Your task to perform on an android device: Is it going to rain tomorrow? Image 0: 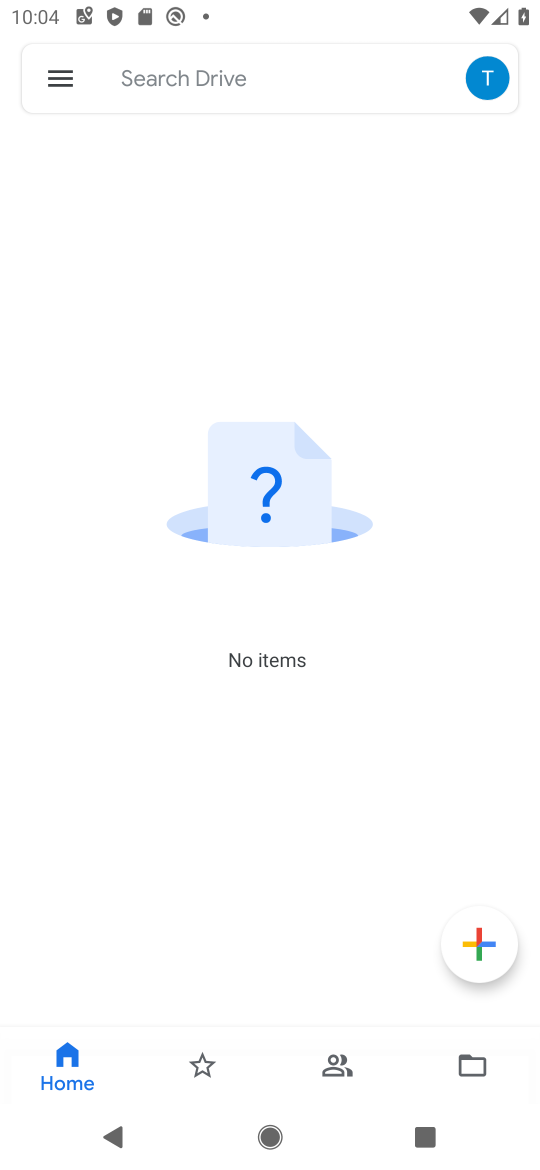
Step 0: drag from (94, 1056) to (6, 1166)
Your task to perform on an android device: Is it going to rain tomorrow? Image 1: 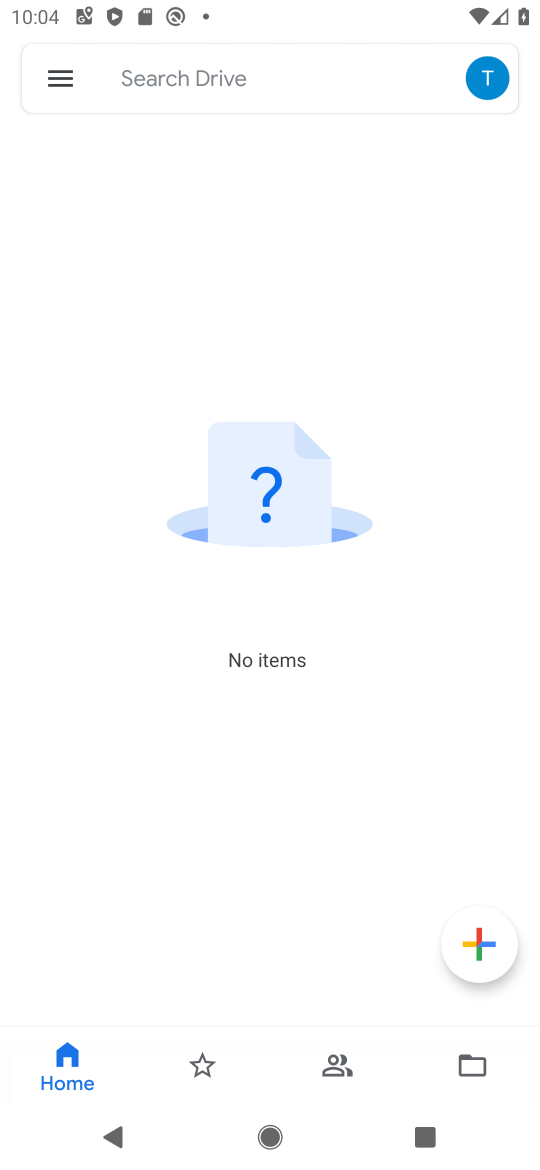
Step 1: click (217, 1158)
Your task to perform on an android device: Is it going to rain tomorrow? Image 2: 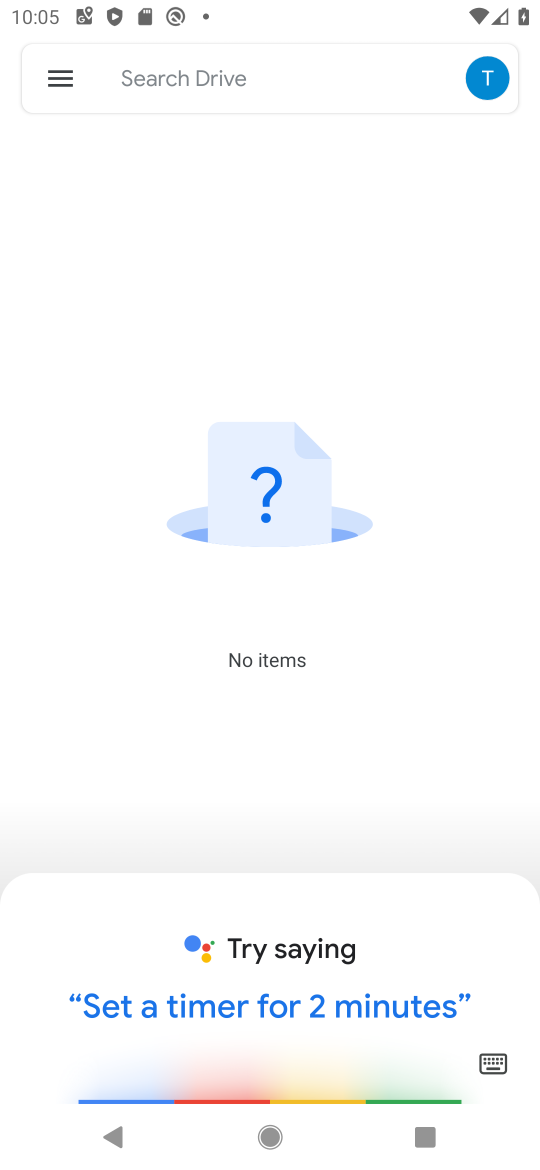
Step 2: press home button
Your task to perform on an android device: Is it going to rain tomorrow? Image 3: 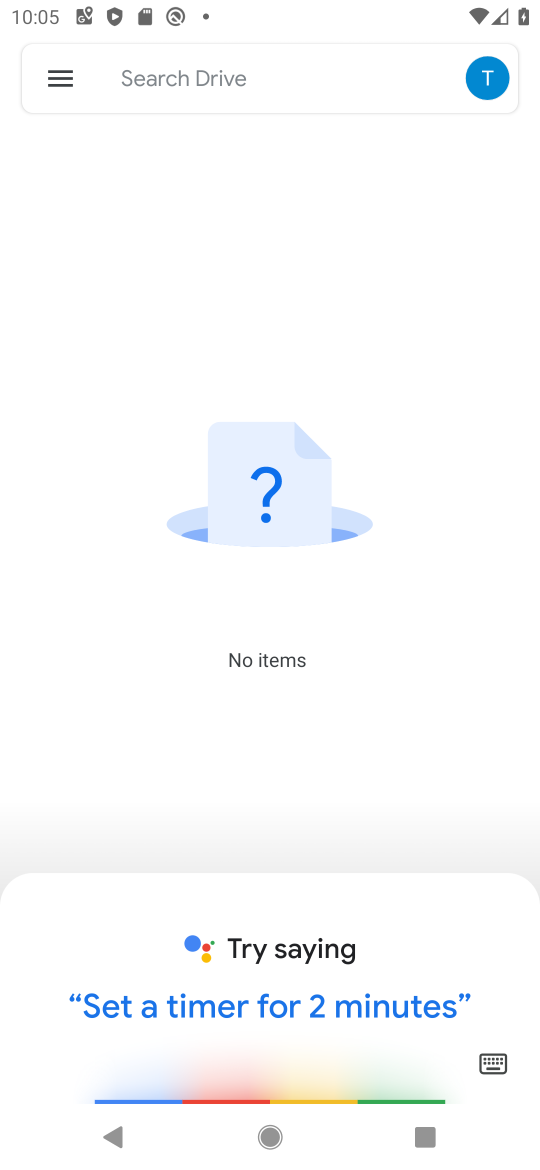
Step 3: click (228, 91)
Your task to perform on an android device: Is it going to rain tomorrow? Image 4: 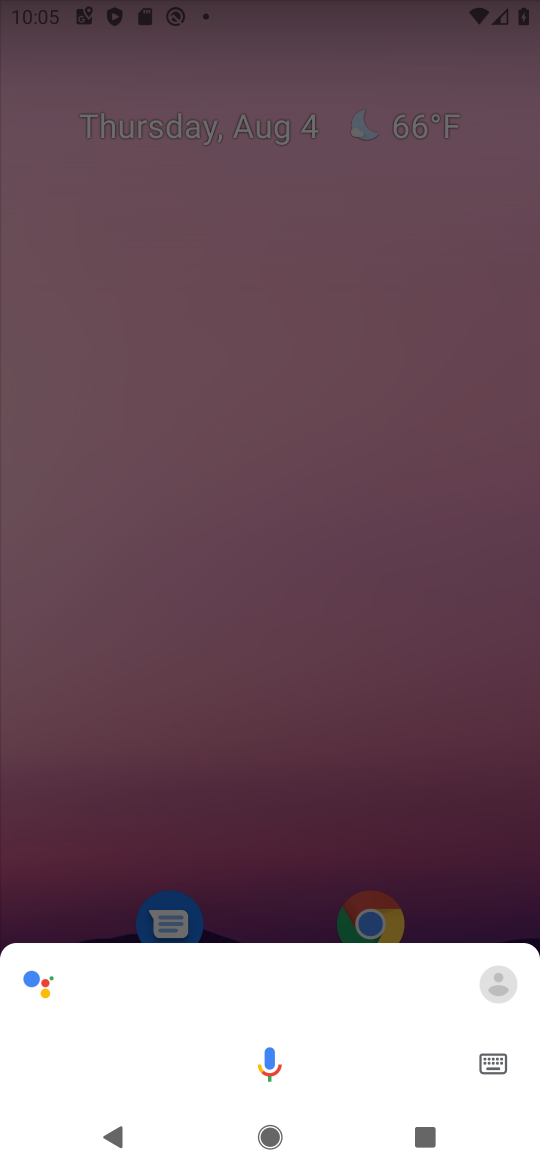
Step 4: click (188, 1055)
Your task to perform on an android device: Is it going to rain tomorrow? Image 5: 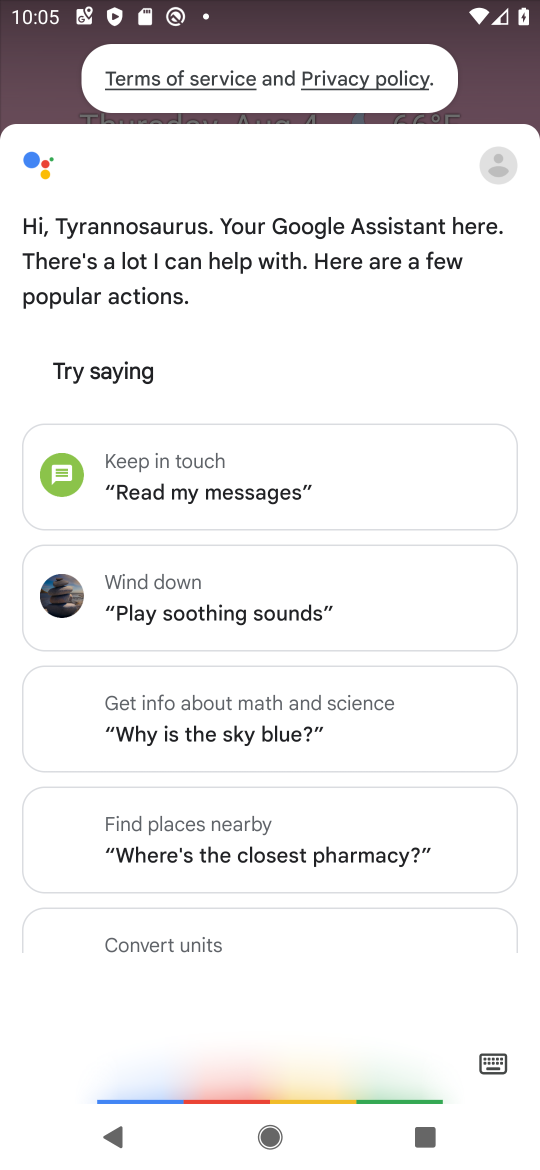
Step 5: press enter
Your task to perform on an android device: Is it going to rain tomorrow? Image 6: 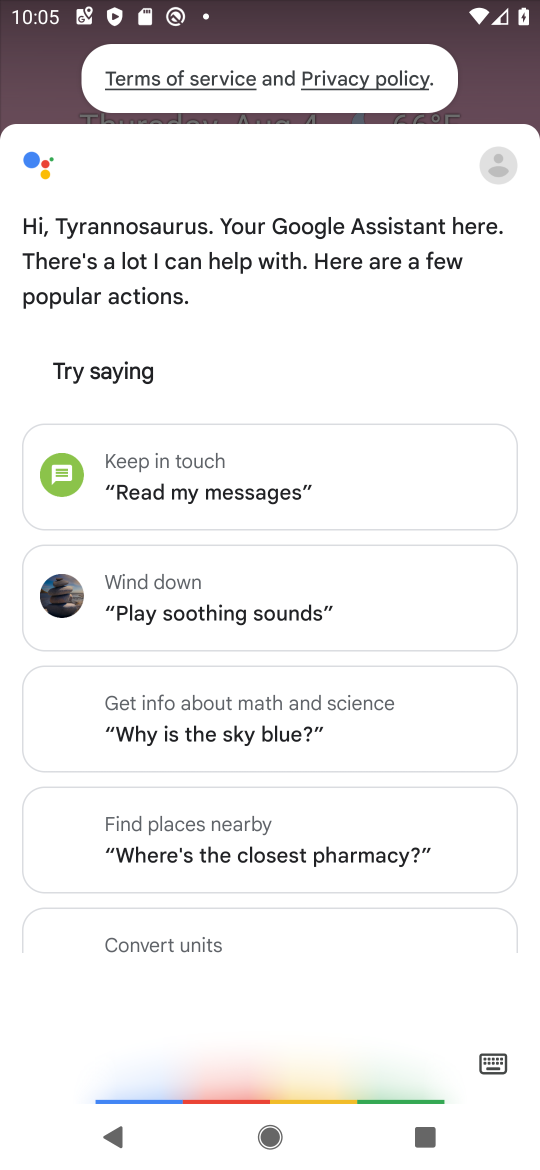
Step 6: type " Is it going to rain tomorrow?"
Your task to perform on an android device: Is it going to rain tomorrow? Image 7: 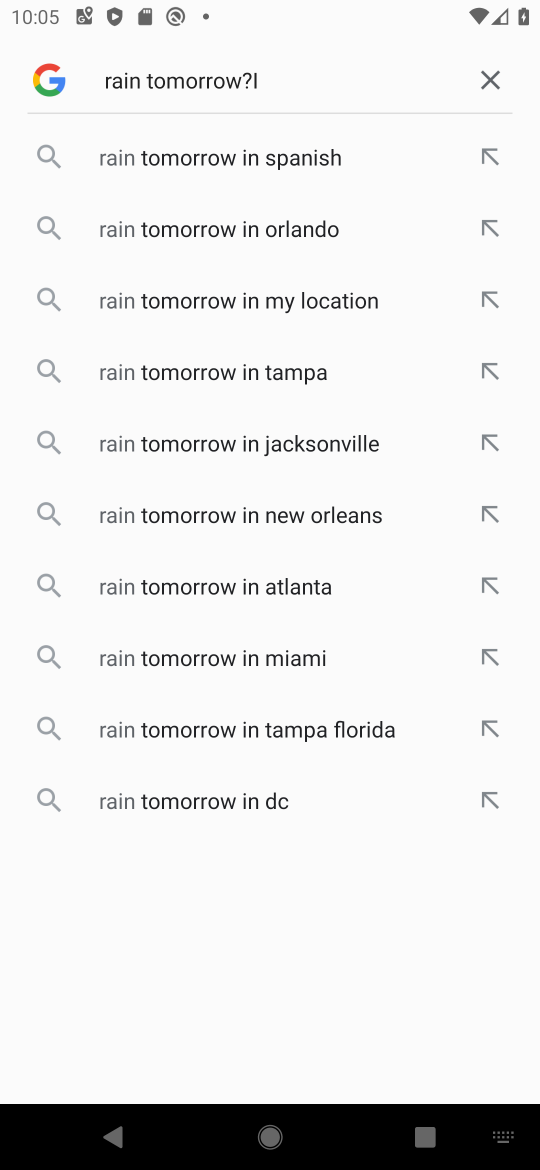
Step 7: click (111, 1144)
Your task to perform on an android device: Is it going to rain tomorrow? Image 8: 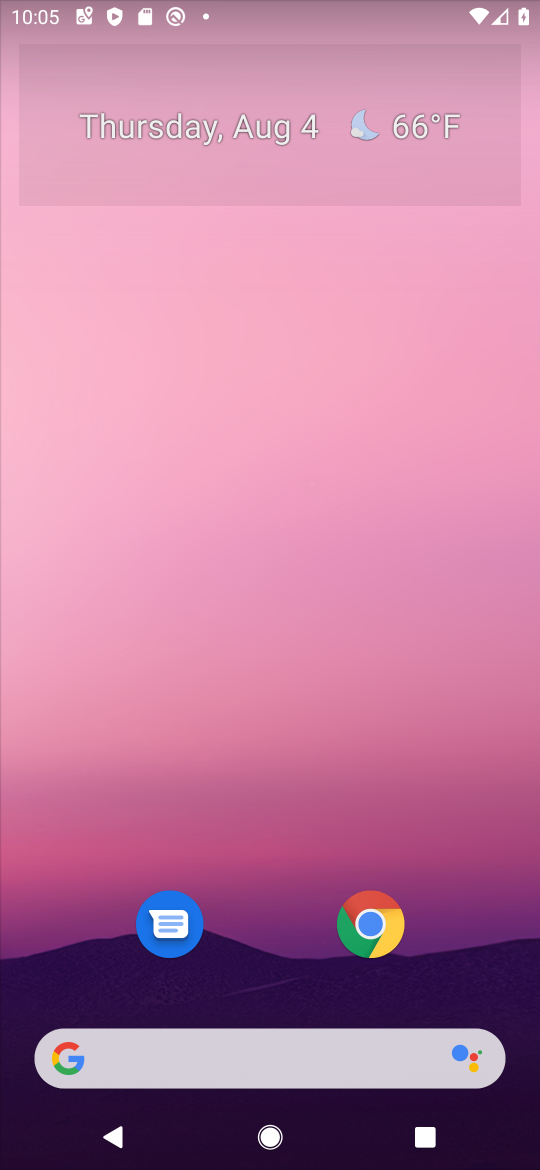
Step 8: click (365, 1058)
Your task to perform on an android device: Is it going to rain tomorrow? Image 9: 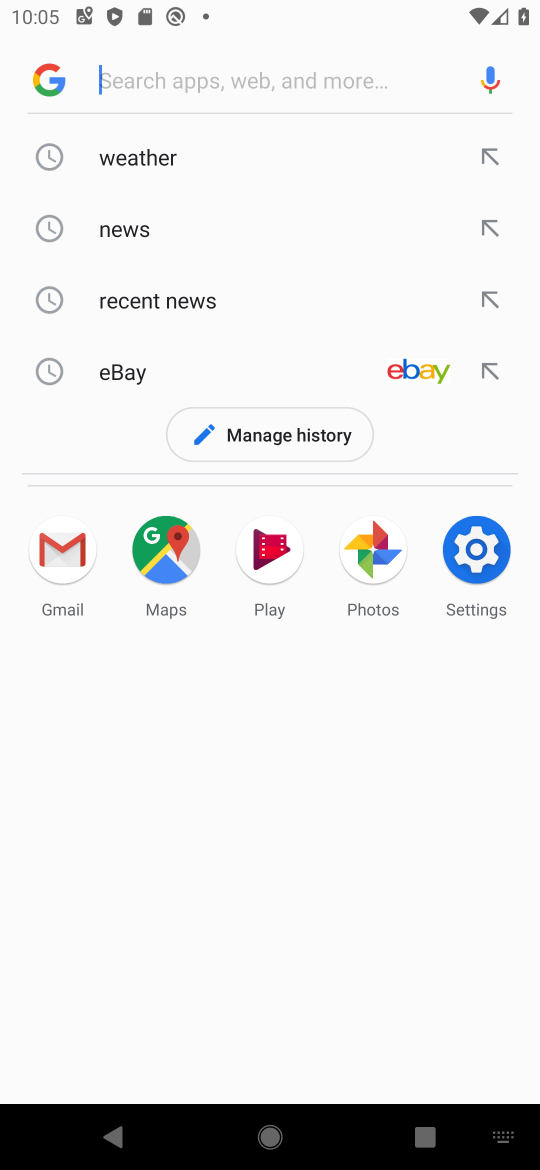
Step 9: press enter
Your task to perform on an android device: Is it going to rain tomorrow? Image 10: 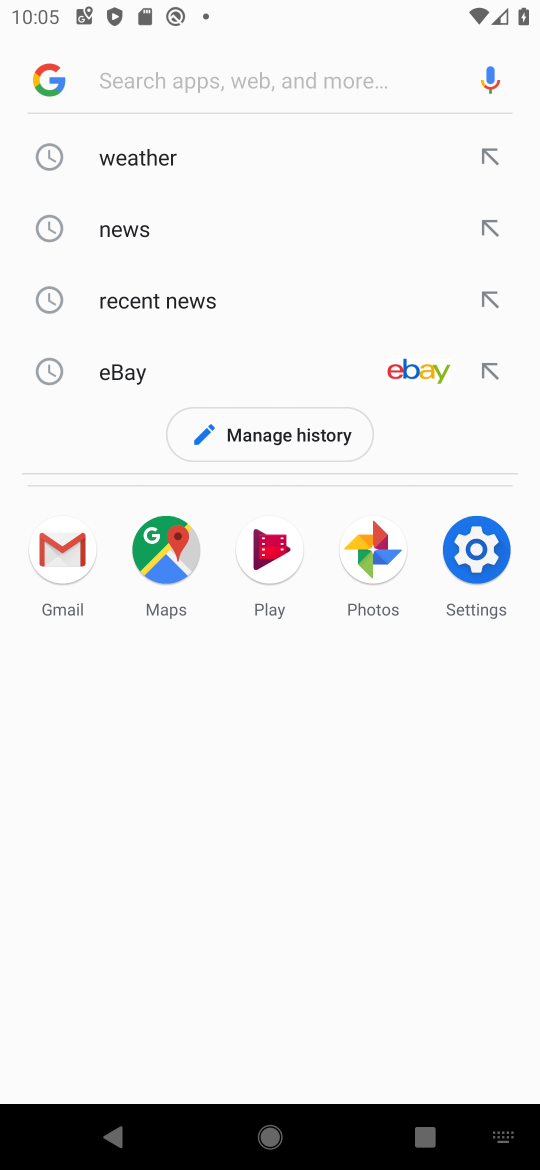
Step 10: type " Is it going to rain tomorrow?"
Your task to perform on an android device: Is it going to rain tomorrow? Image 11: 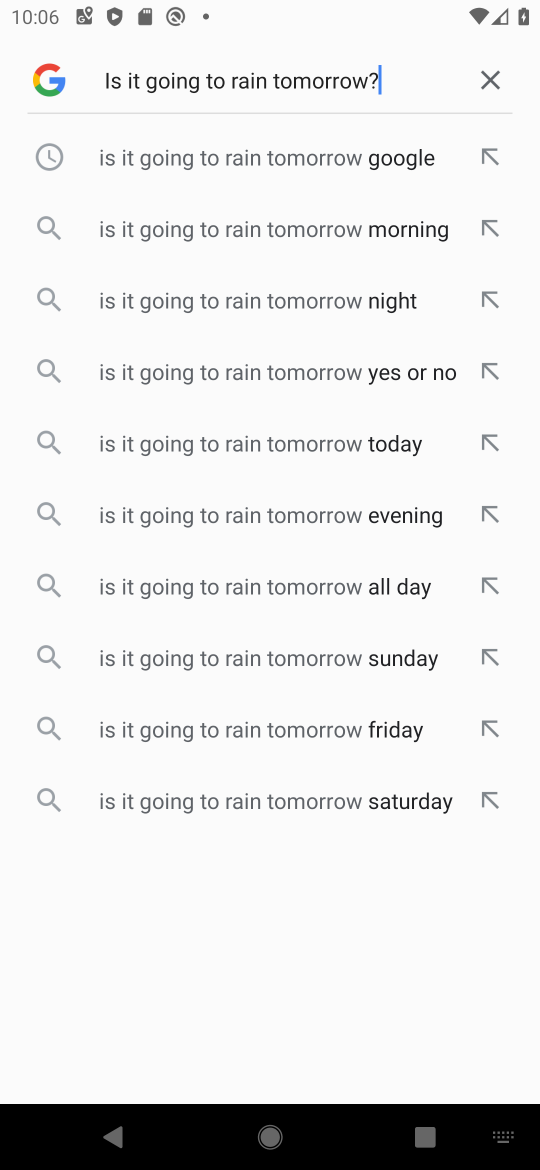
Step 11: press enter
Your task to perform on an android device: Is it going to rain tomorrow? Image 12: 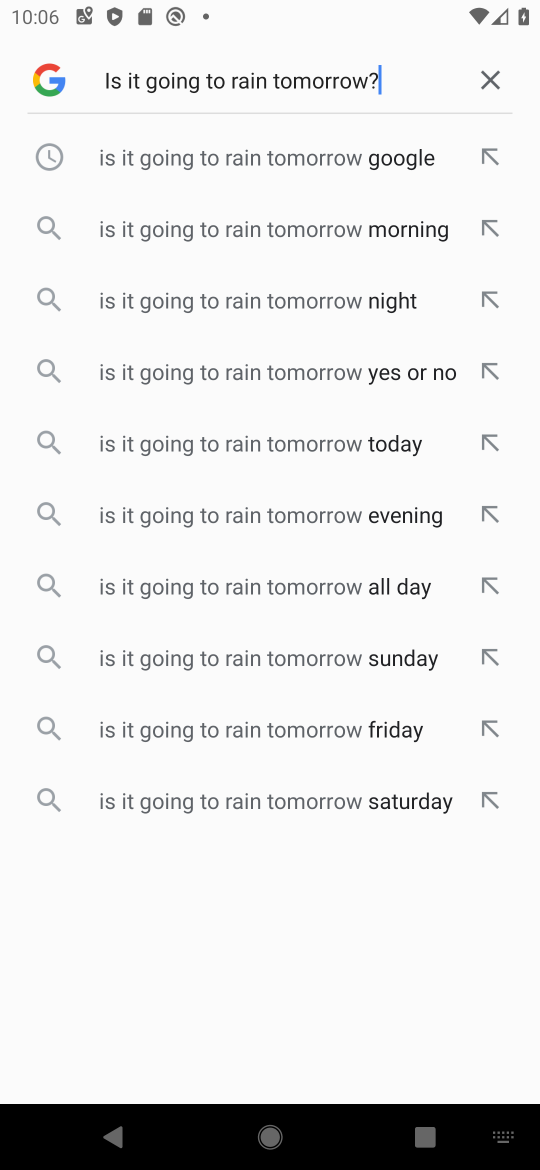
Step 12: type " Is it going to rain tomorrow?"
Your task to perform on an android device: Is it going to rain tomorrow? Image 13: 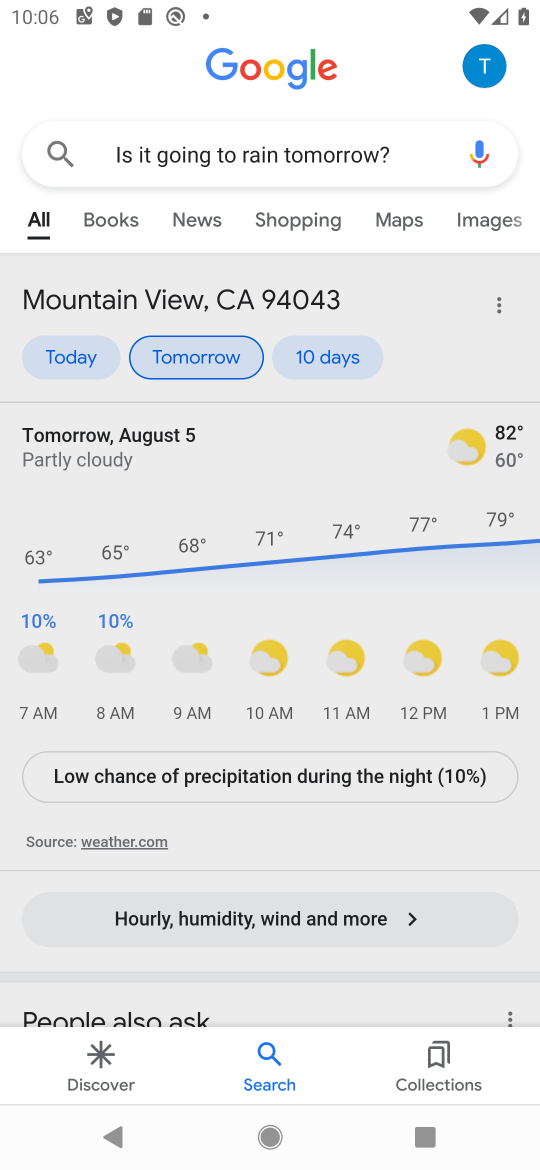
Step 13: task complete